Your task to perform on an android device: turn off smart reply in the gmail app Image 0: 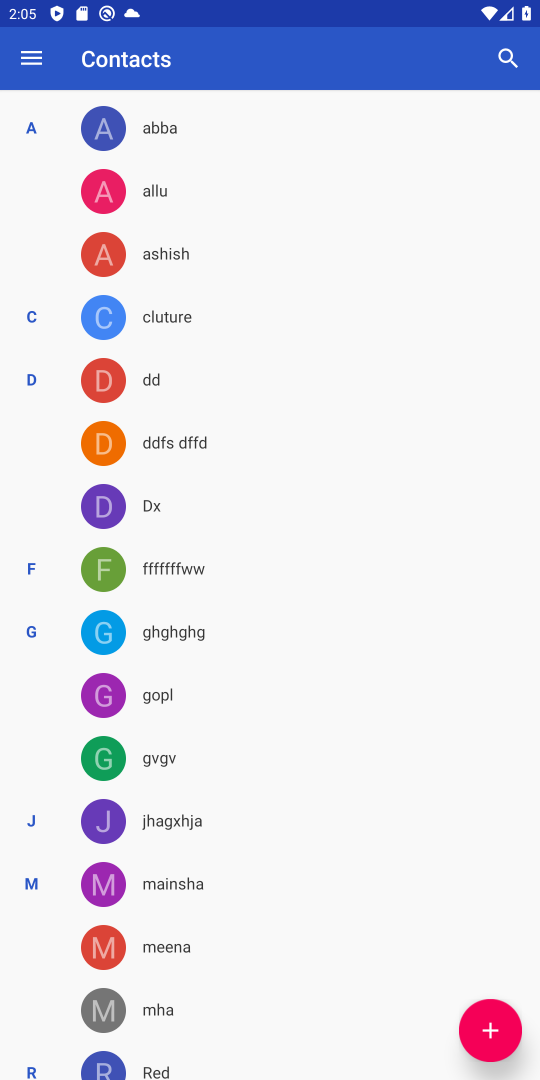
Step 0: press home button
Your task to perform on an android device: turn off smart reply in the gmail app Image 1: 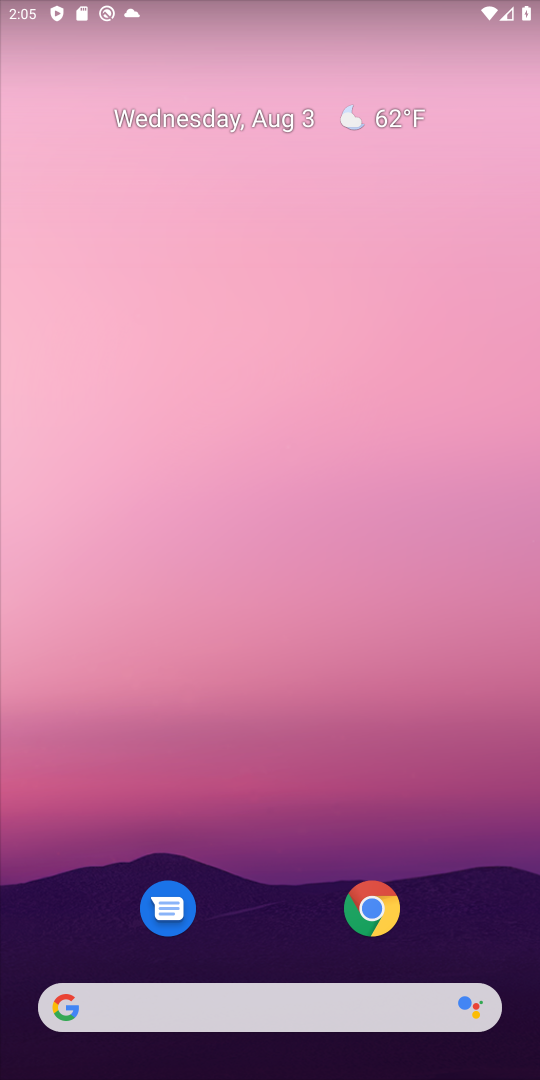
Step 1: drag from (226, 1016) to (341, 79)
Your task to perform on an android device: turn off smart reply in the gmail app Image 2: 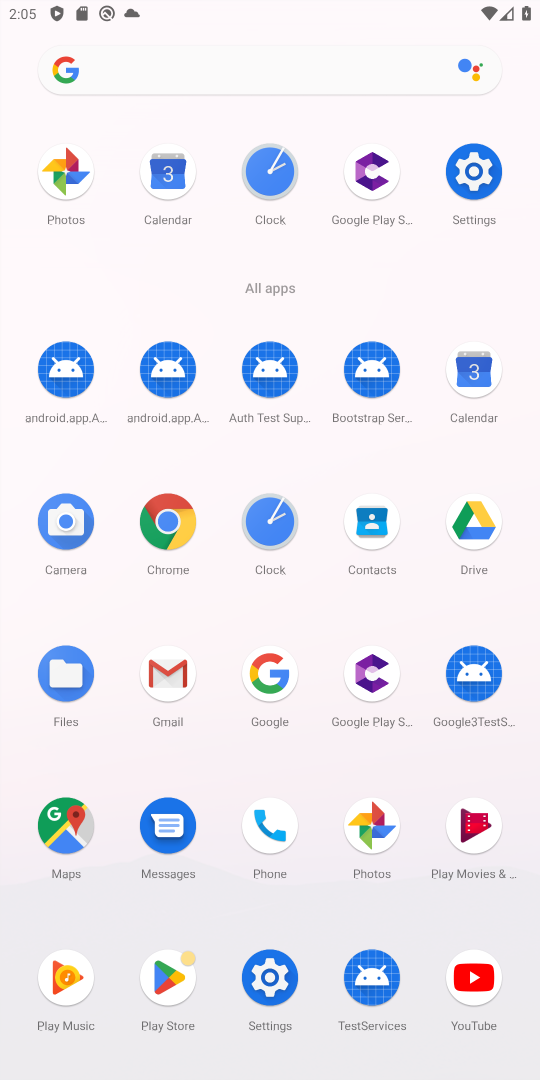
Step 2: click (171, 679)
Your task to perform on an android device: turn off smart reply in the gmail app Image 3: 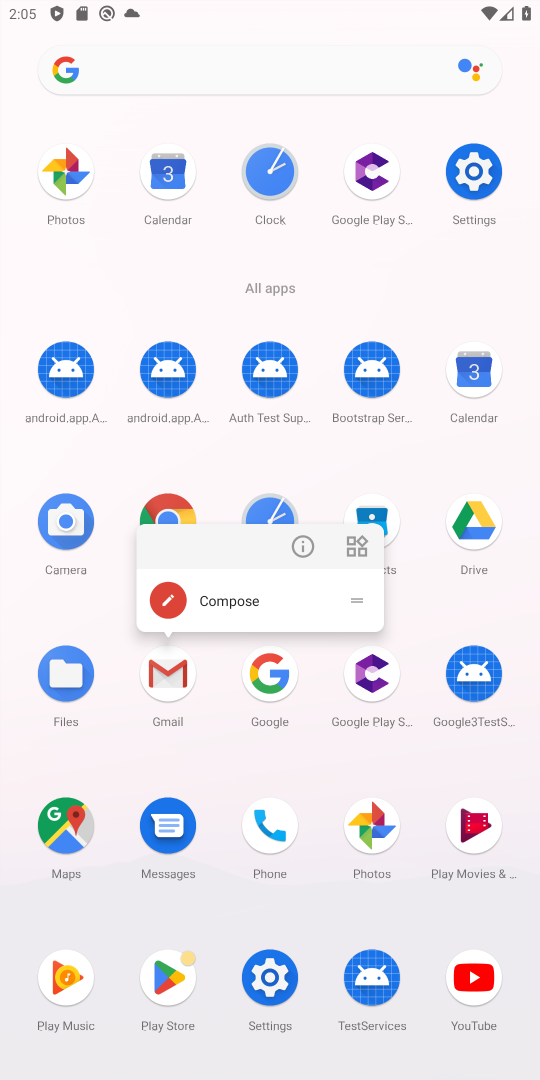
Step 3: click (171, 679)
Your task to perform on an android device: turn off smart reply in the gmail app Image 4: 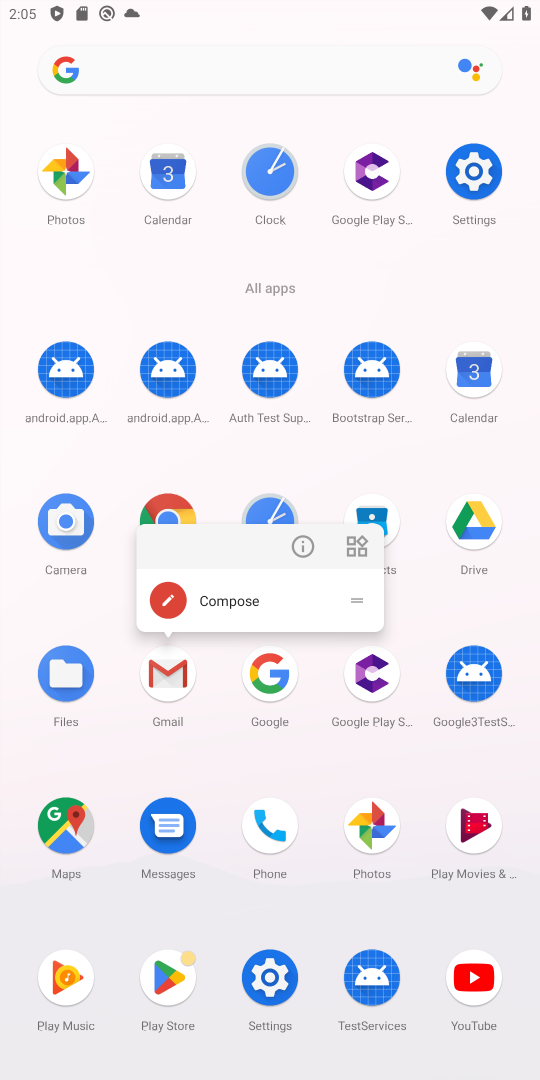
Step 4: click (171, 679)
Your task to perform on an android device: turn off smart reply in the gmail app Image 5: 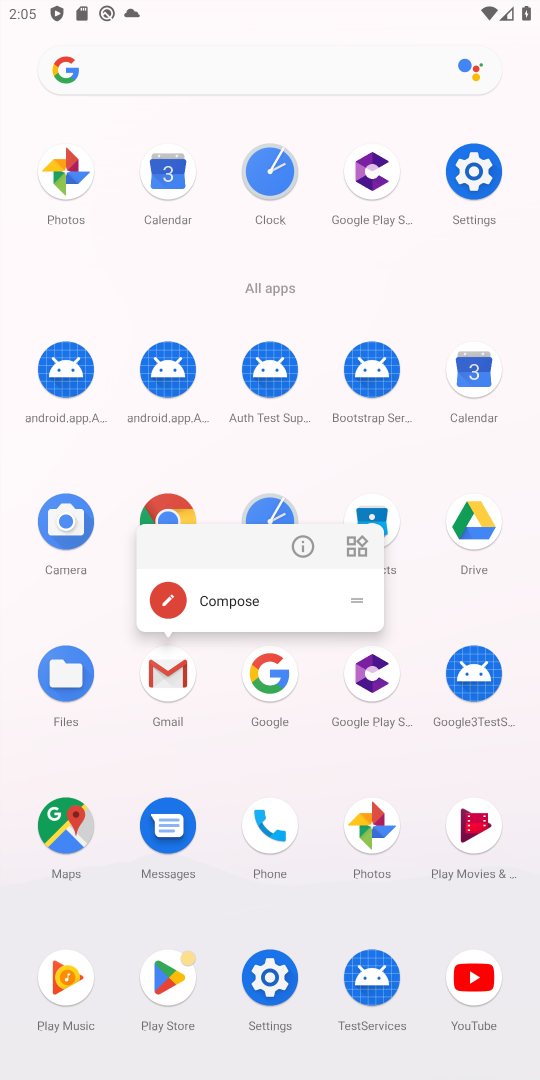
Step 5: click (172, 712)
Your task to perform on an android device: turn off smart reply in the gmail app Image 6: 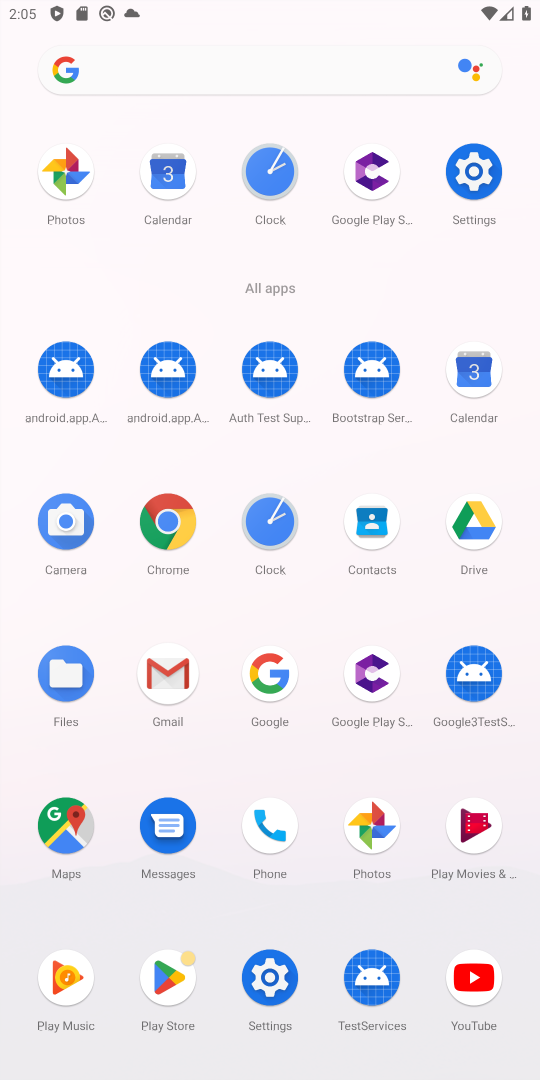
Step 6: click (143, 701)
Your task to perform on an android device: turn off smart reply in the gmail app Image 7: 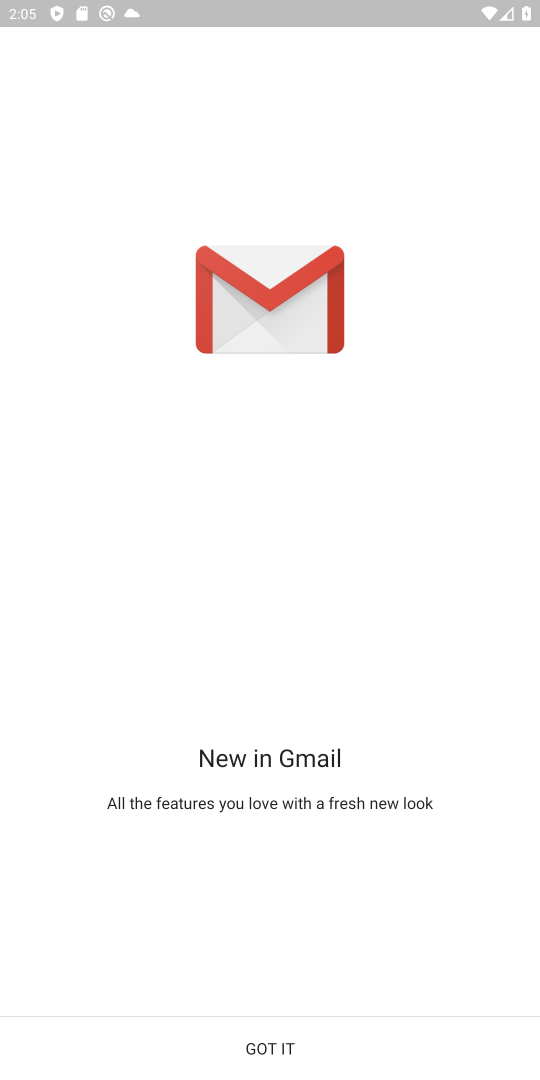
Step 7: click (283, 1052)
Your task to perform on an android device: turn off smart reply in the gmail app Image 8: 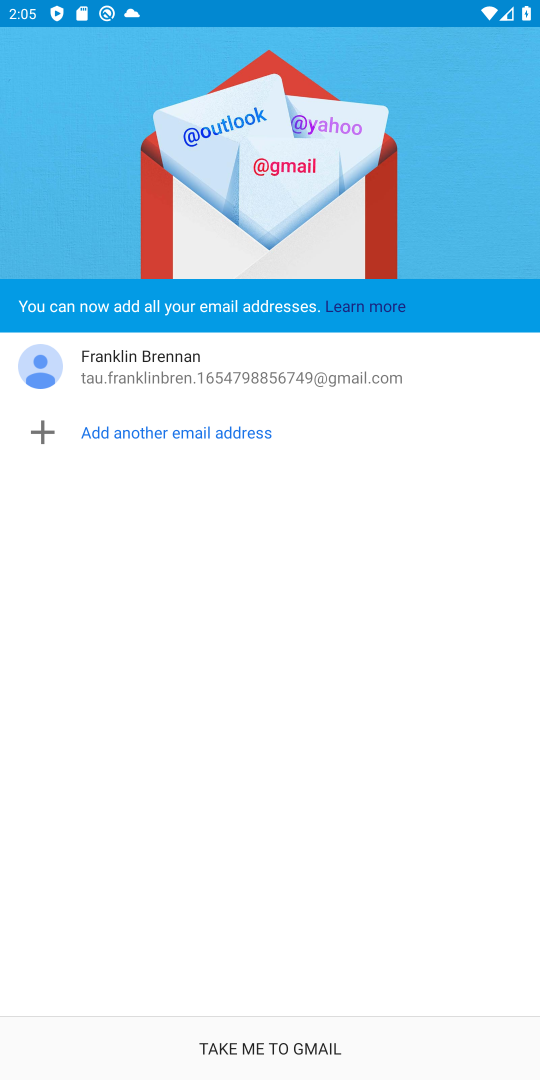
Step 8: click (283, 1052)
Your task to perform on an android device: turn off smart reply in the gmail app Image 9: 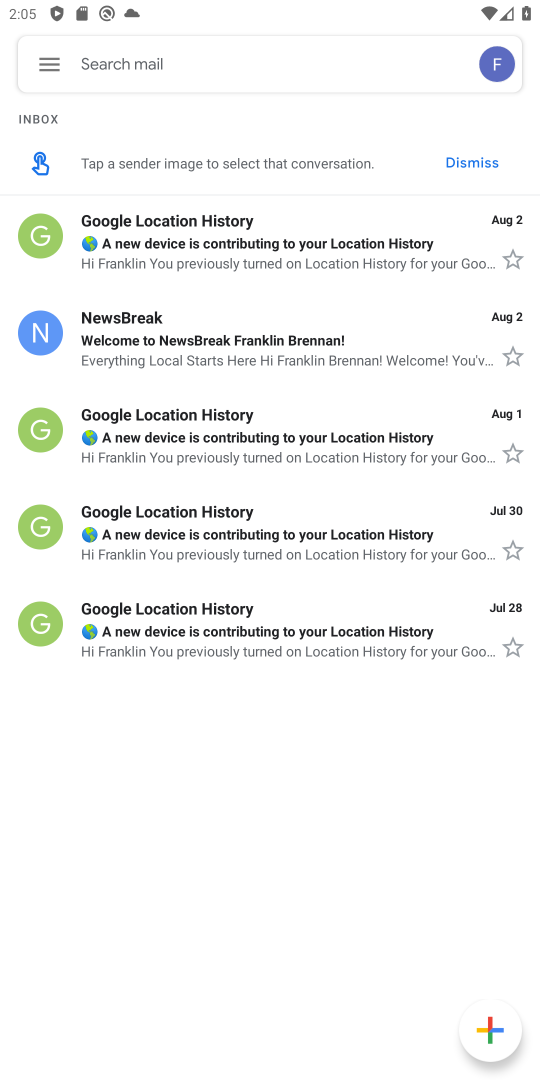
Step 9: click (47, 58)
Your task to perform on an android device: turn off smart reply in the gmail app Image 10: 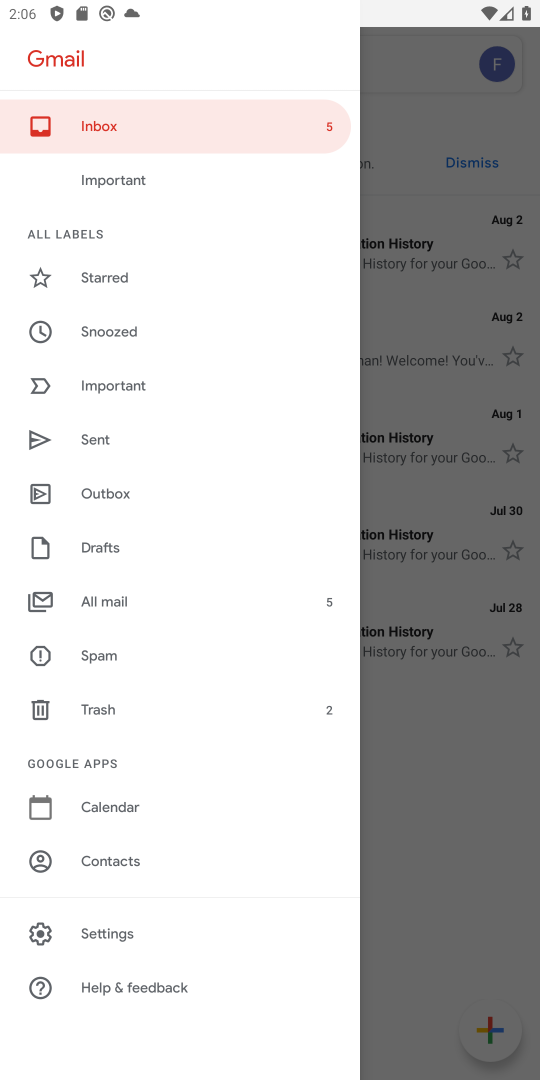
Step 10: click (98, 929)
Your task to perform on an android device: turn off smart reply in the gmail app Image 11: 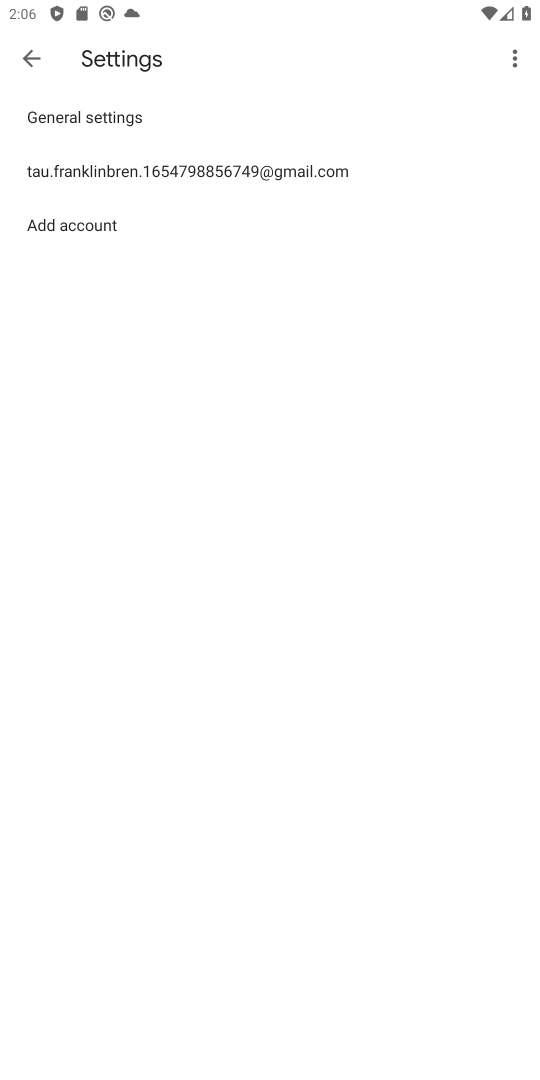
Step 11: click (83, 178)
Your task to perform on an android device: turn off smart reply in the gmail app Image 12: 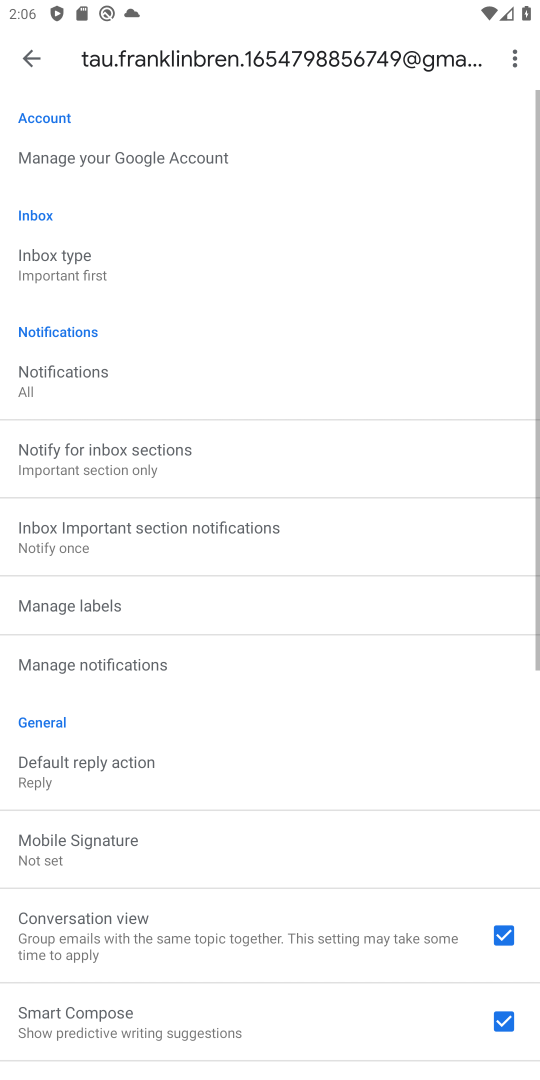
Step 12: drag from (266, 963) to (308, 254)
Your task to perform on an android device: turn off smart reply in the gmail app Image 13: 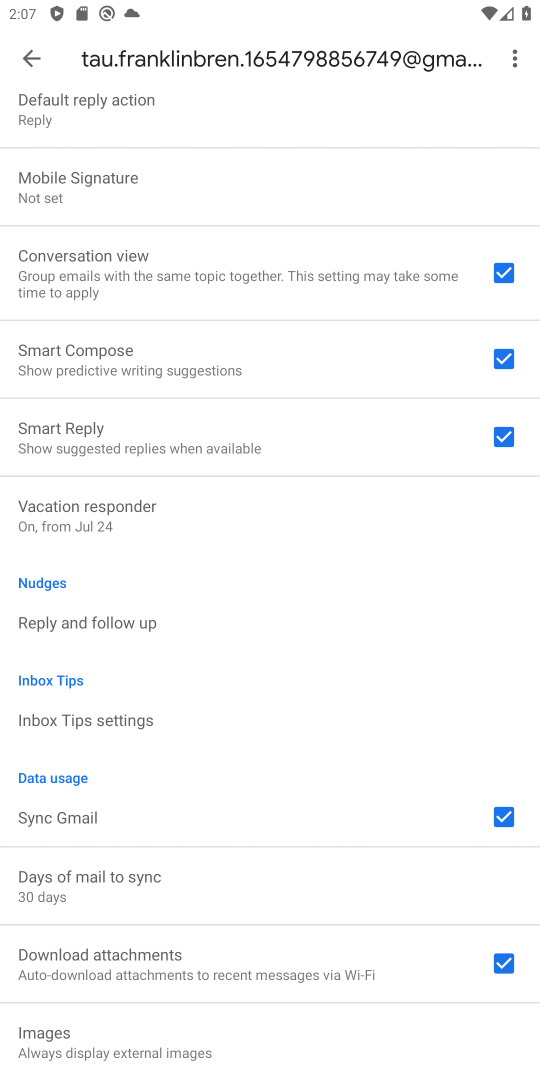
Step 13: click (516, 430)
Your task to perform on an android device: turn off smart reply in the gmail app Image 14: 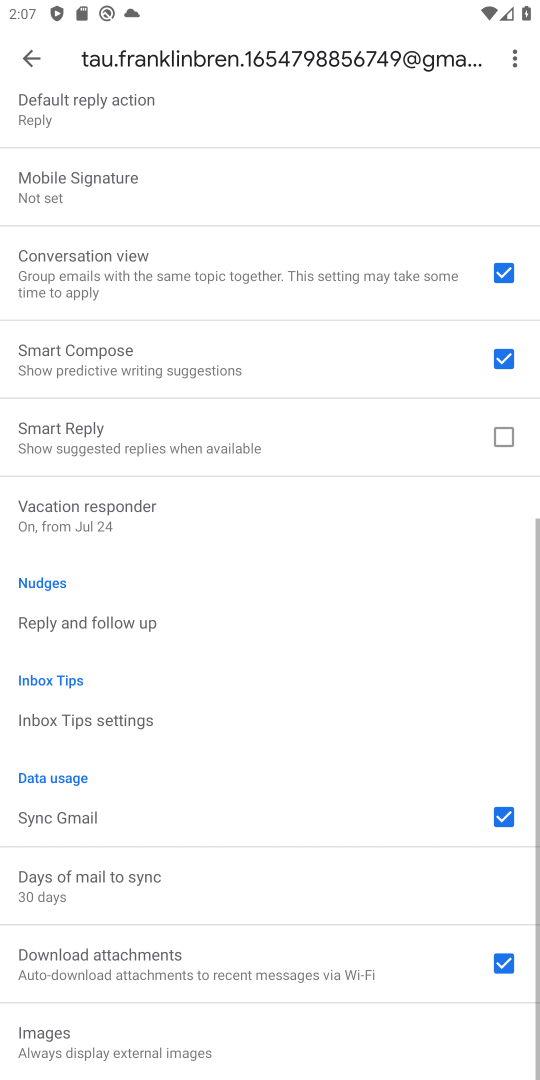
Step 14: task complete